Your task to perform on an android device: turn on translation in the chrome app Image 0: 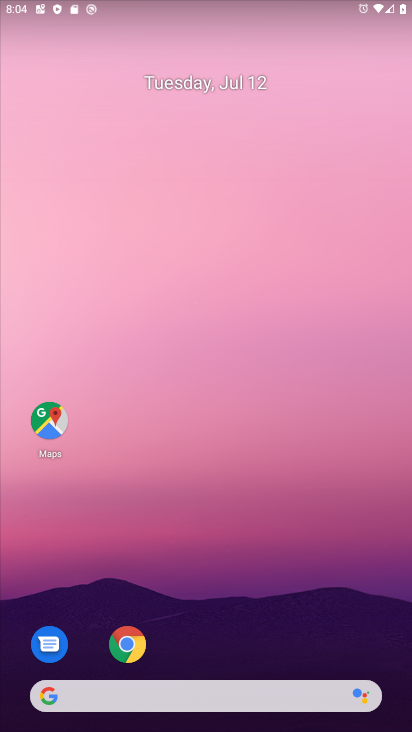
Step 0: drag from (182, 678) to (238, 333)
Your task to perform on an android device: turn on translation in the chrome app Image 1: 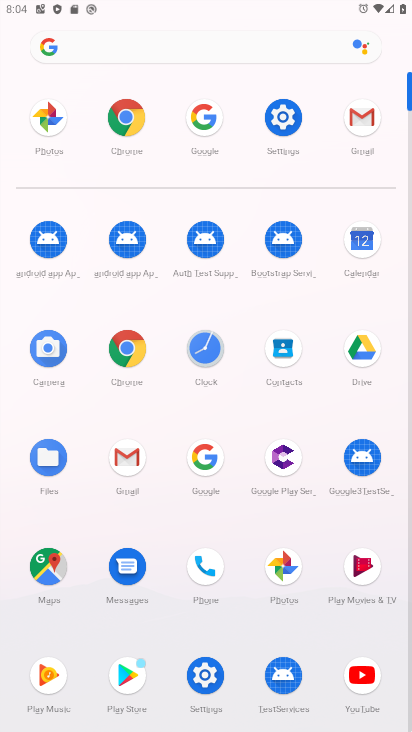
Step 1: click (116, 346)
Your task to perform on an android device: turn on translation in the chrome app Image 2: 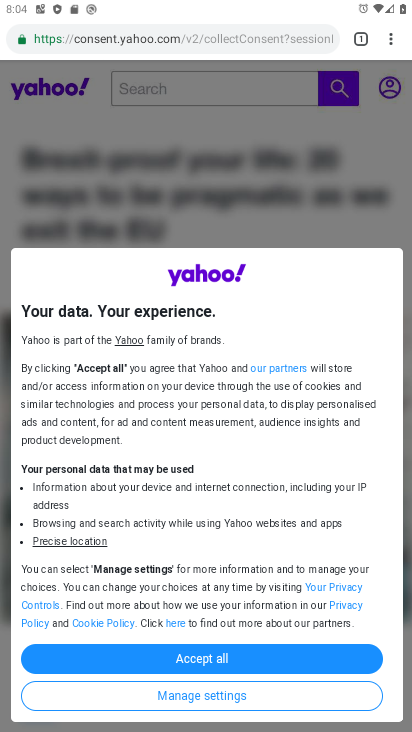
Step 2: click (388, 47)
Your task to perform on an android device: turn on translation in the chrome app Image 3: 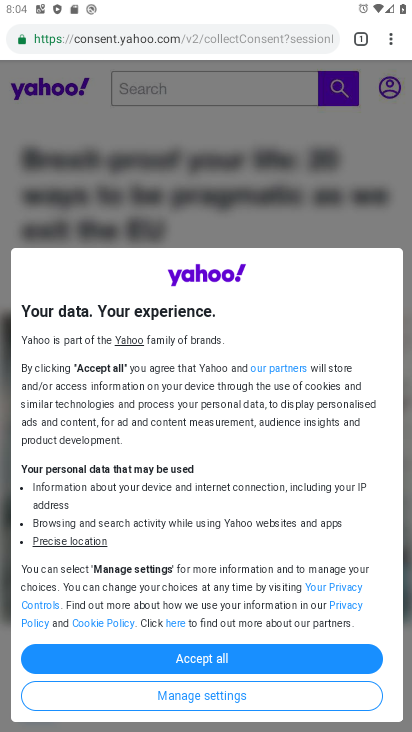
Step 3: click (388, 47)
Your task to perform on an android device: turn on translation in the chrome app Image 4: 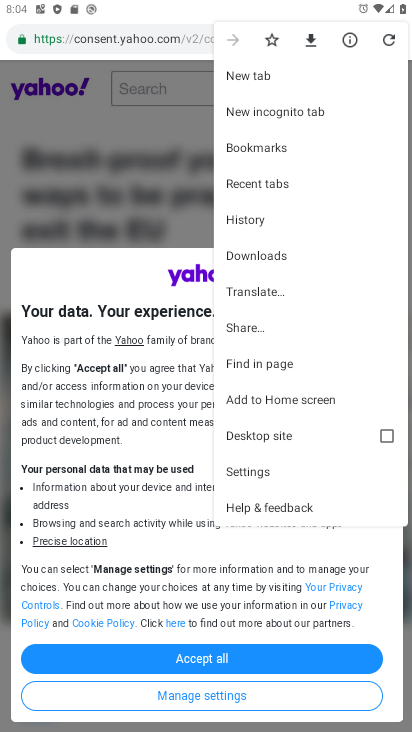
Step 4: click (248, 473)
Your task to perform on an android device: turn on translation in the chrome app Image 5: 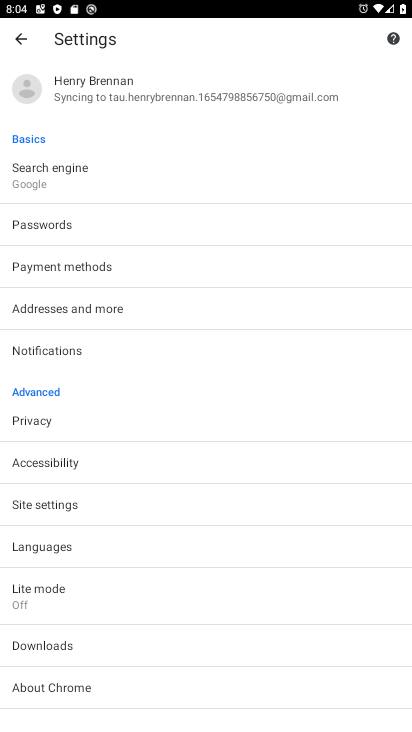
Step 5: click (47, 591)
Your task to perform on an android device: turn on translation in the chrome app Image 6: 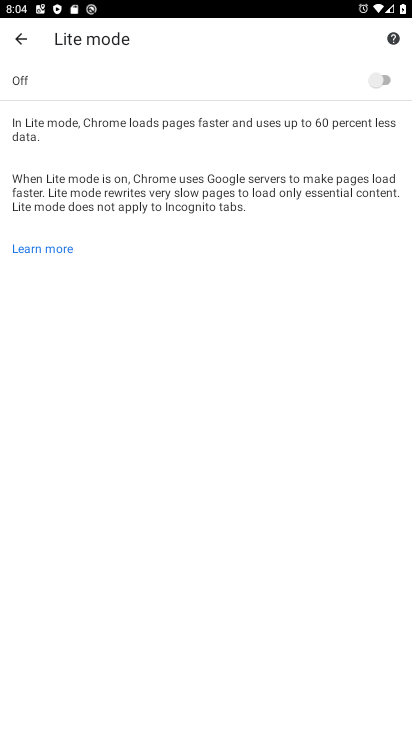
Step 6: click (388, 79)
Your task to perform on an android device: turn on translation in the chrome app Image 7: 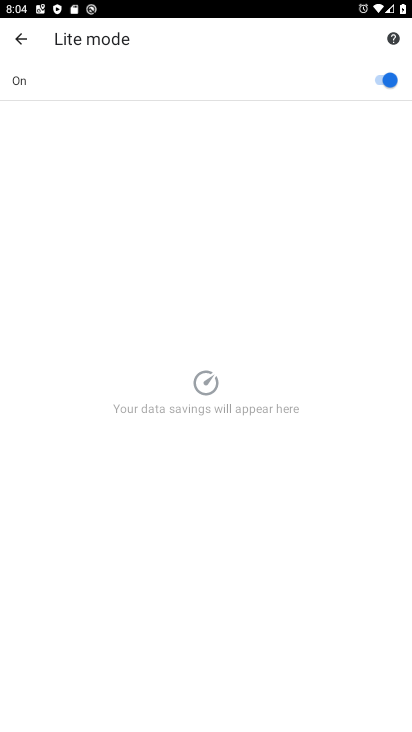
Step 7: task complete